Your task to perform on an android device: open a bookmark in the chrome app Image 0: 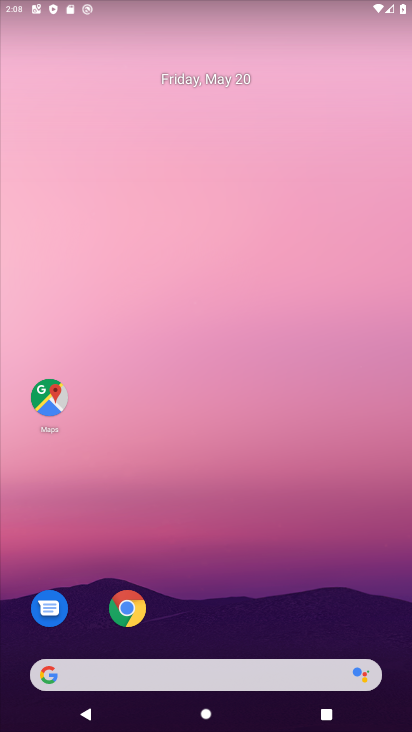
Step 0: click (126, 605)
Your task to perform on an android device: open a bookmark in the chrome app Image 1: 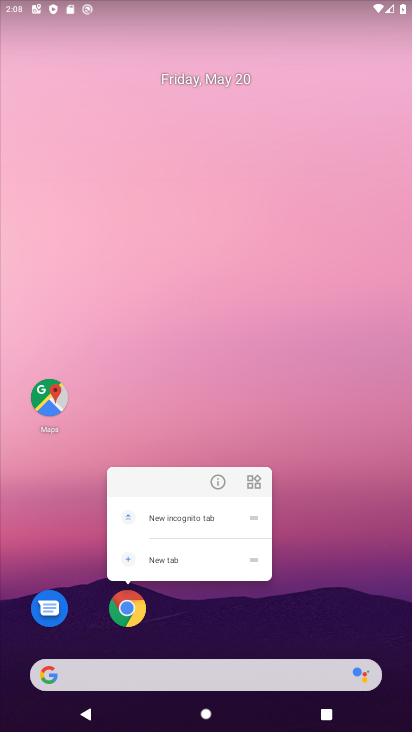
Step 1: click (129, 604)
Your task to perform on an android device: open a bookmark in the chrome app Image 2: 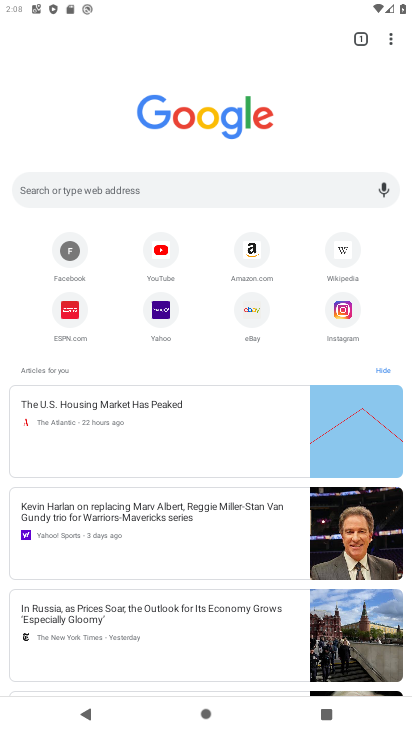
Step 2: task complete